Your task to perform on an android device: see creations saved in the google photos Image 0: 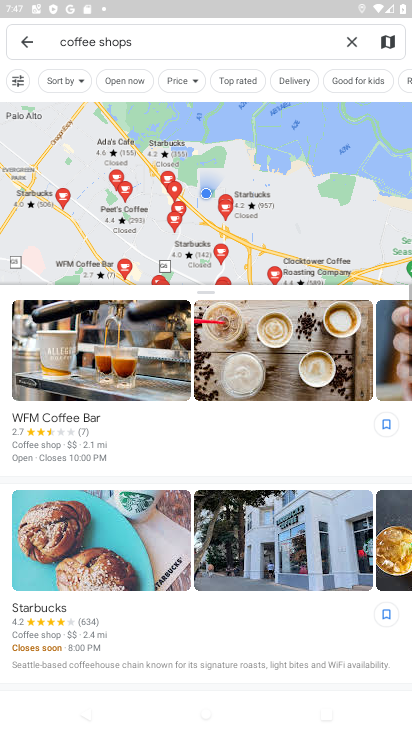
Step 0: press home button
Your task to perform on an android device: see creations saved in the google photos Image 1: 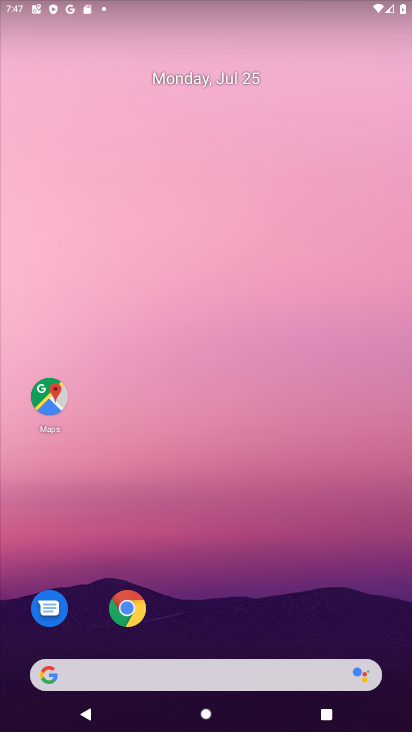
Step 1: drag from (184, 568) to (126, 83)
Your task to perform on an android device: see creations saved in the google photos Image 2: 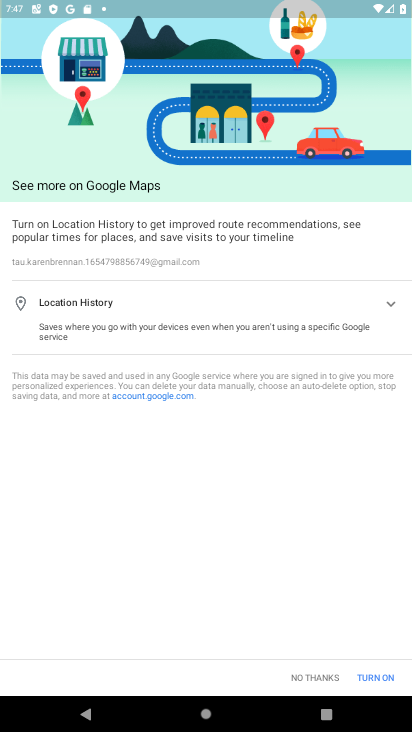
Step 2: press home button
Your task to perform on an android device: see creations saved in the google photos Image 3: 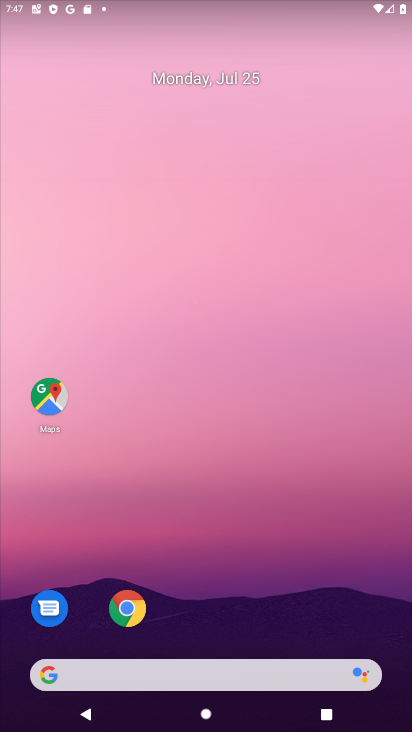
Step 3: drag from (288, 621) to (268, 116)
Your task to perform on an android device: see creations saved in the google photos Image 4: 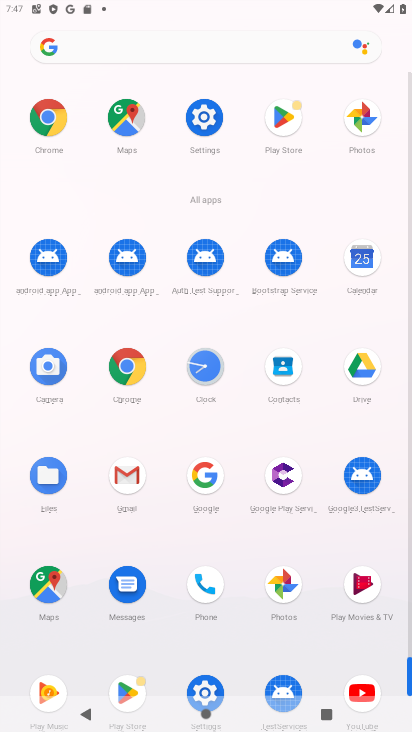
Step 4: click (299, 588)
Your task to perform on an android device: see creations saved in the google photos Image 5: 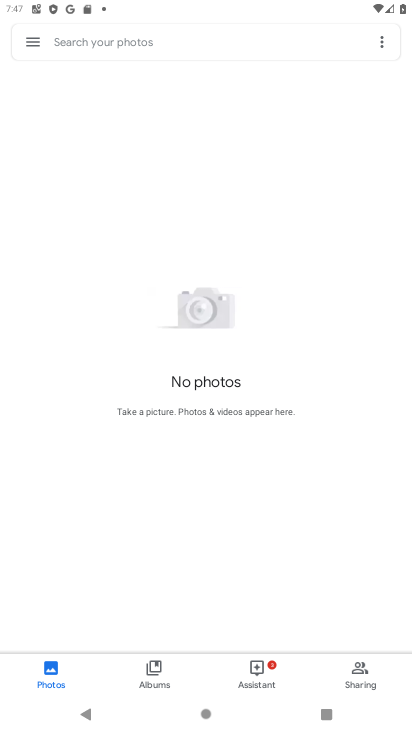
Step 5: click (262, 685)
Your task to perform on an android device: see creations saved in the google photos Image 6: 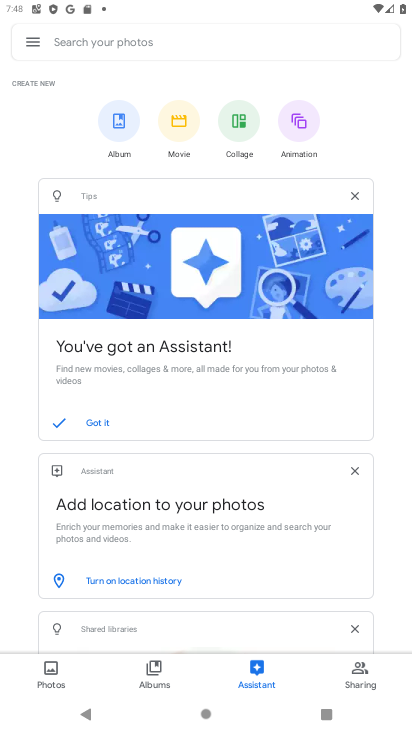
Step 6: task complete